Your task to perform on an android device: see sites visited before in the chrome app Image 0: 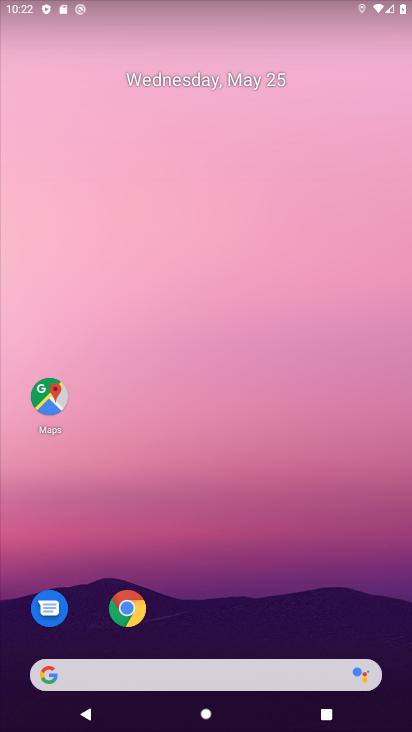
Step 0: drag from (249, 625) to (251, 164)
Your task to perform on an android device: see sites visited before in the chrome app Image 1: 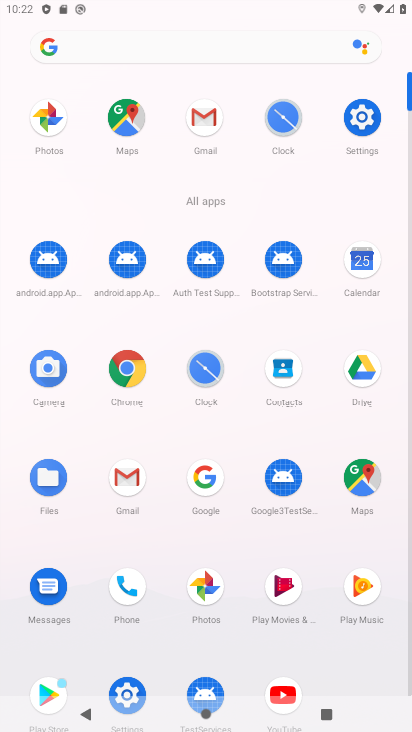
Step 1: click (129, 365)
Your task to perform on an android device: see sites visited before in the chrome app Image 2: 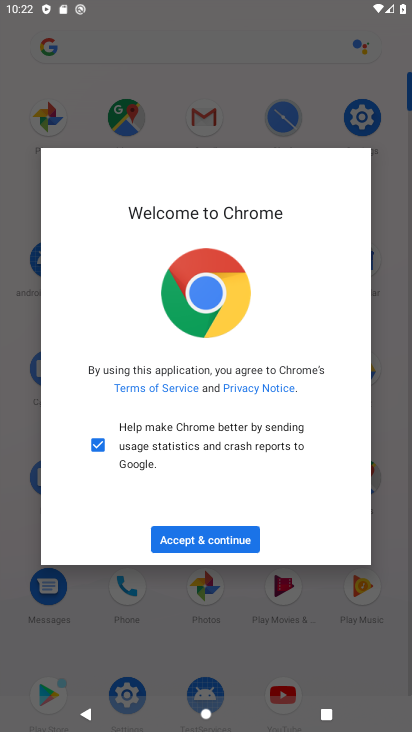
Step 2: click (211, 543)
Your task to perform on an android device: see sites visited before in the chrome app Image 3: 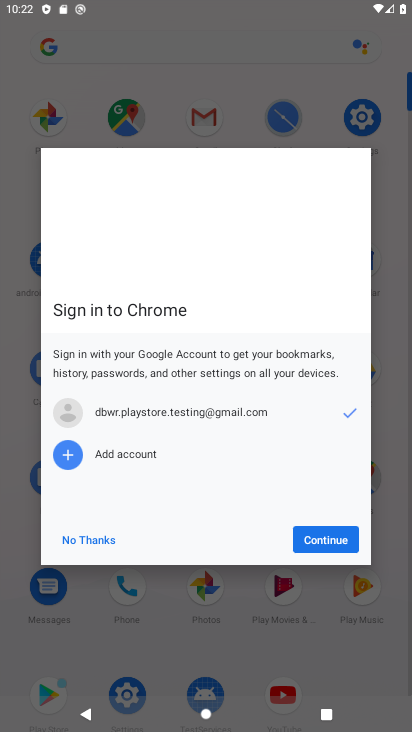
Step 3: click (315, 542)
Your task to perform on an android device: see sites visited before in the chrome app Image 4: 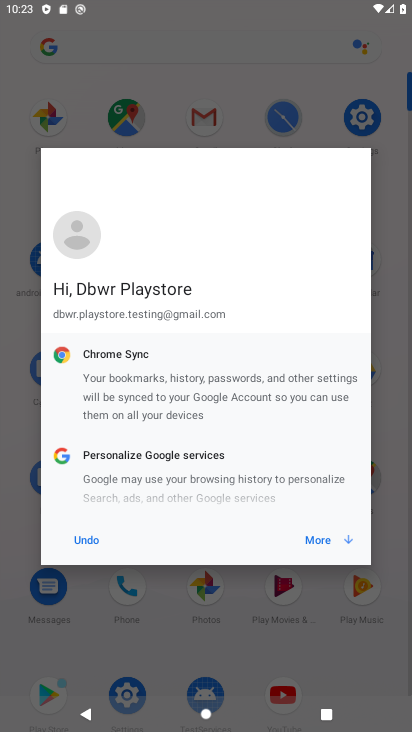
Step 4: click (315, 542)
Your task to perform on an android device: see sites visited before in the chrome app Image 5: 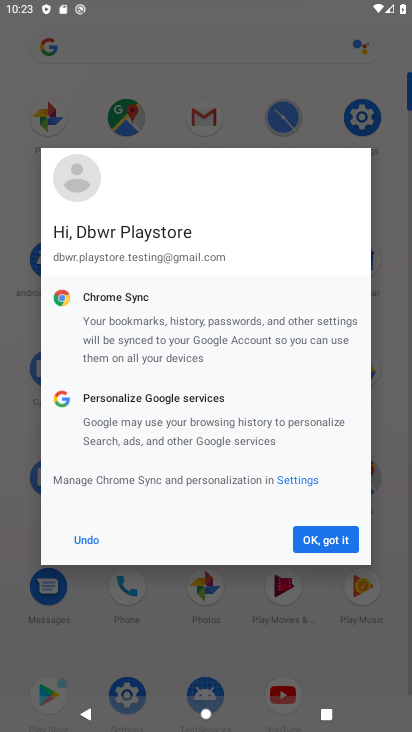
Step 5: click (315, 542)
Your task to perform on an android device: see sites visited before in the chrome app Image 6: 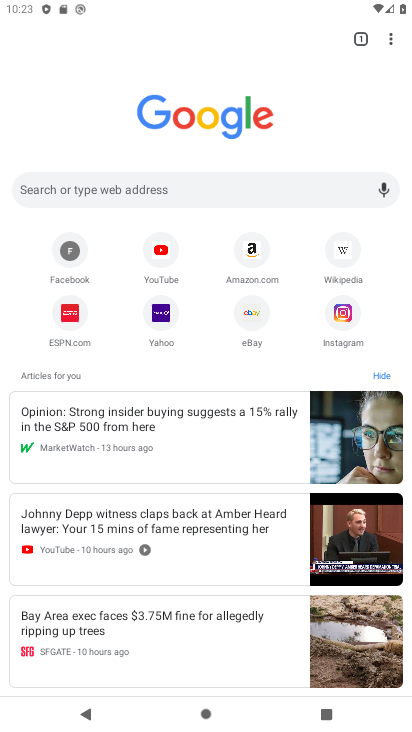
Step 6: click (389, 41)
Your task to perform on an android device: see sites visited before in the chrome app Image 7: 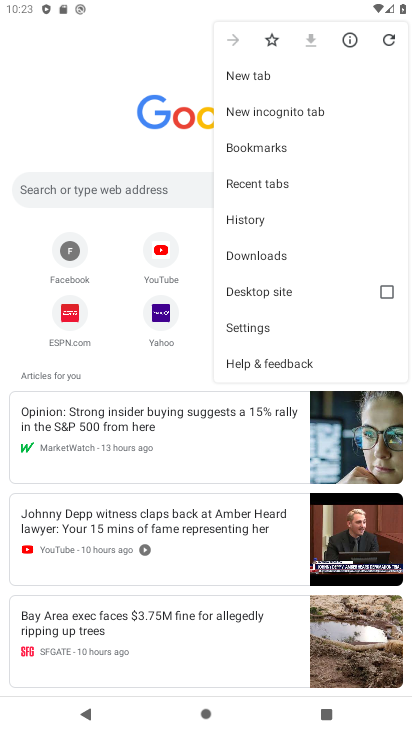
Step 7: click (272, 218)
Your task to perform on an android device: see sites visited before in the chrome app Image 8: 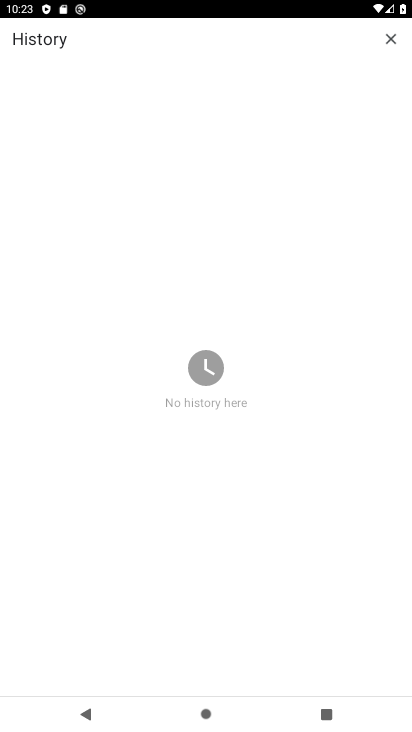
Step 8: task complete